Your task to perform on an android device: How much does a 2 bedroom apartment rent for in Washington DC? Image 0: 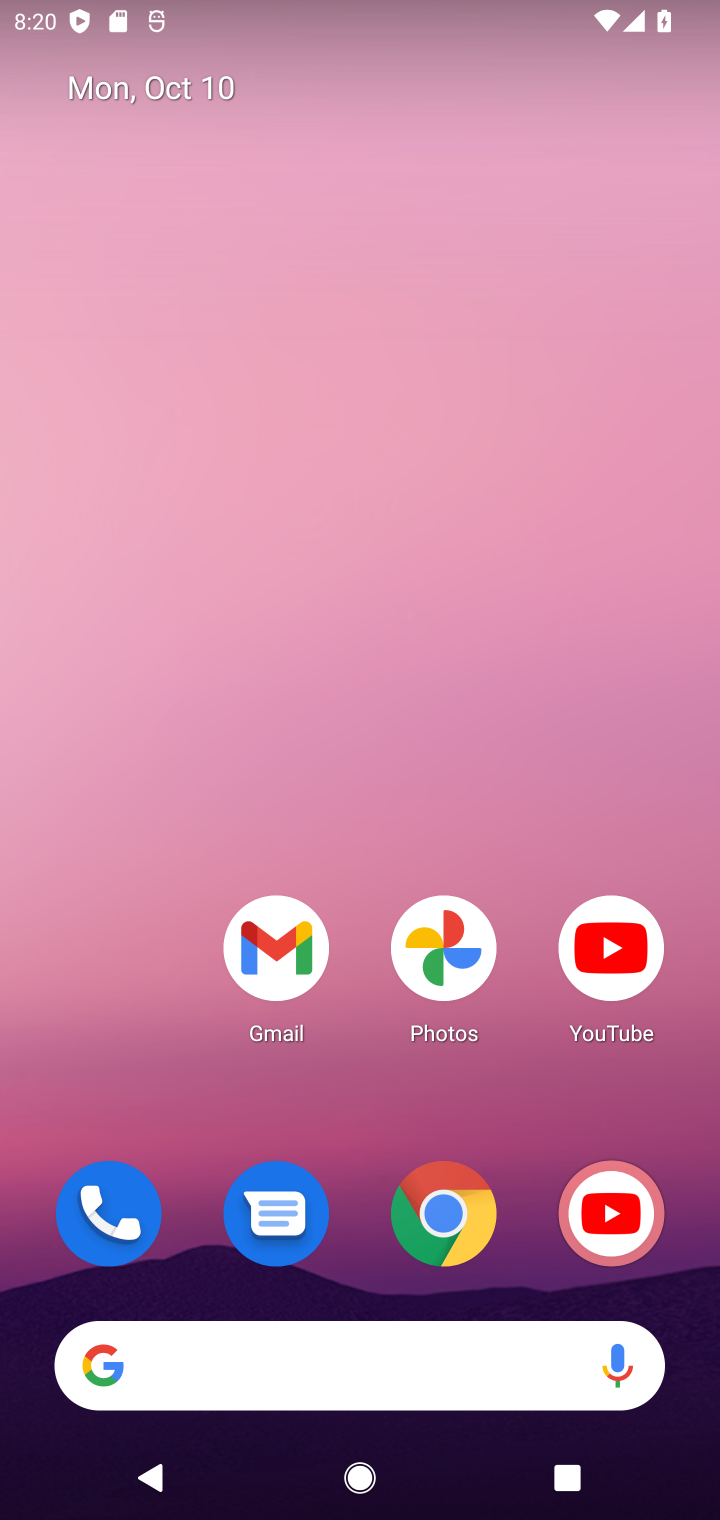
Step 0: click (341, 1407)
Your task to perform on an android device: How much does a 2 bedroom apartment rent for in Washington DC? Image 1: 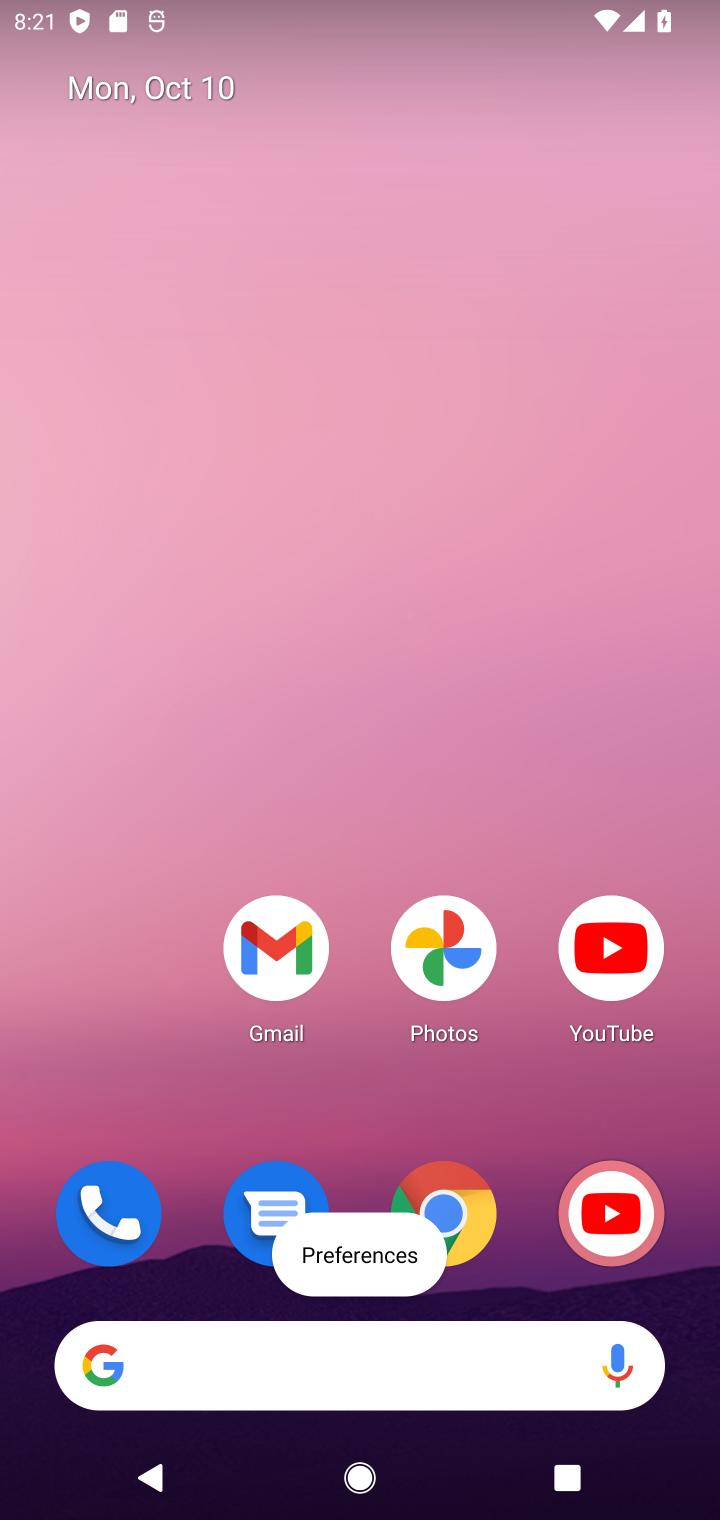
Step 1: click (320, 1351)
Your task to perform on an android device: How much does a 2 bedroom apartment rent for in Washington DC? Image 2: 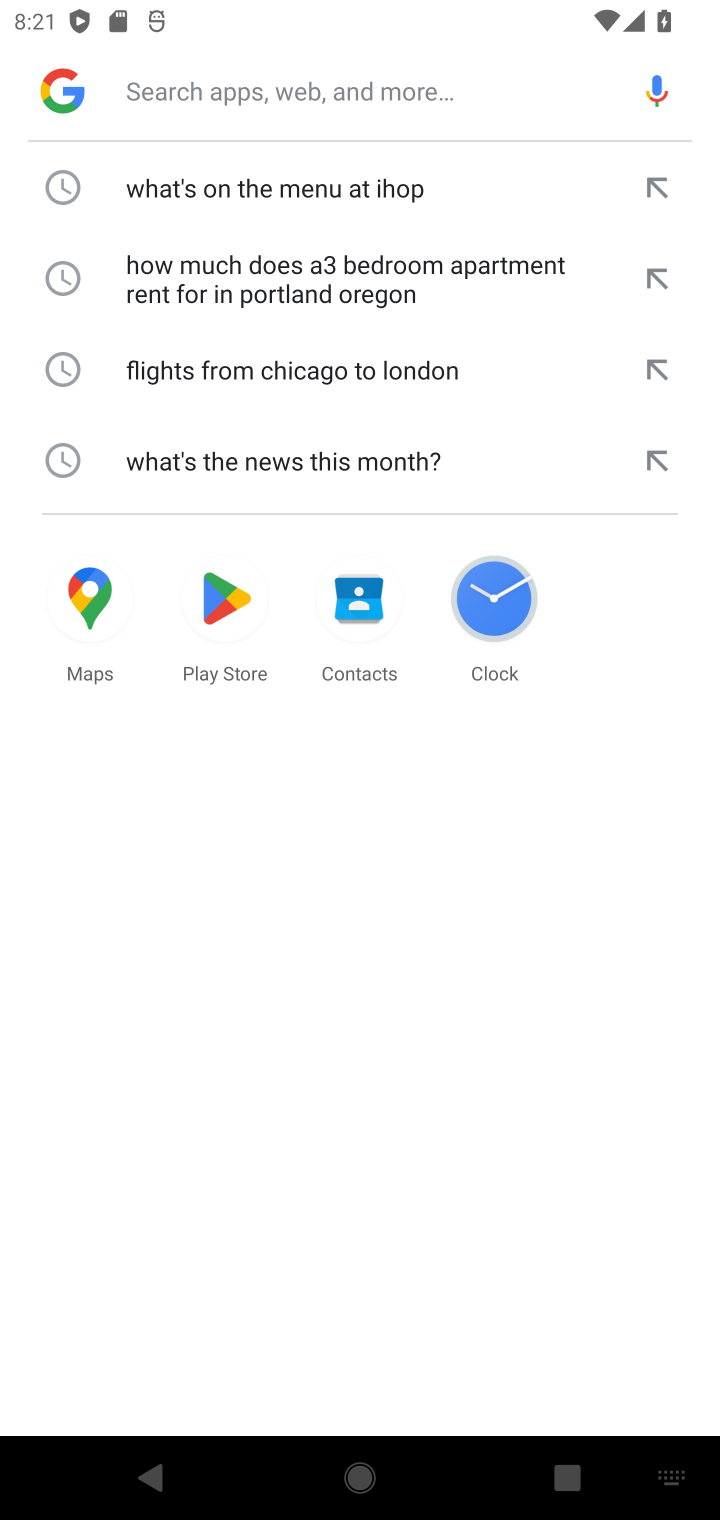
Step 2: click (246, 69)
Your task to perform on an android device: How much does a 2 bedroom apartment rent for in Washington DC? Image 3: 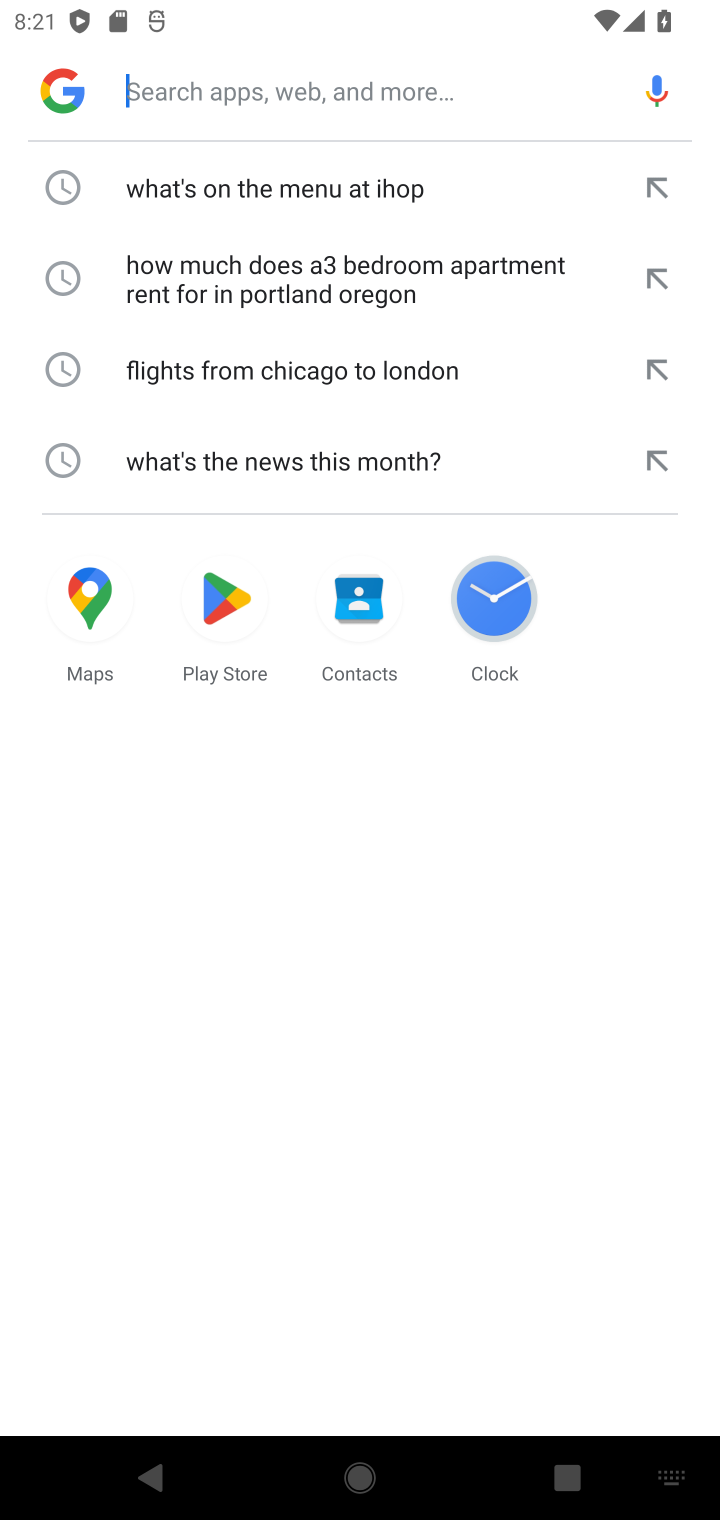
Step 3: type "How much does a 2 bedroom apartment rent for in Washington DC?"
Your task to perform on an android device: How much does a 2 bedroom apartment rent for in Washington DC? Image 4: 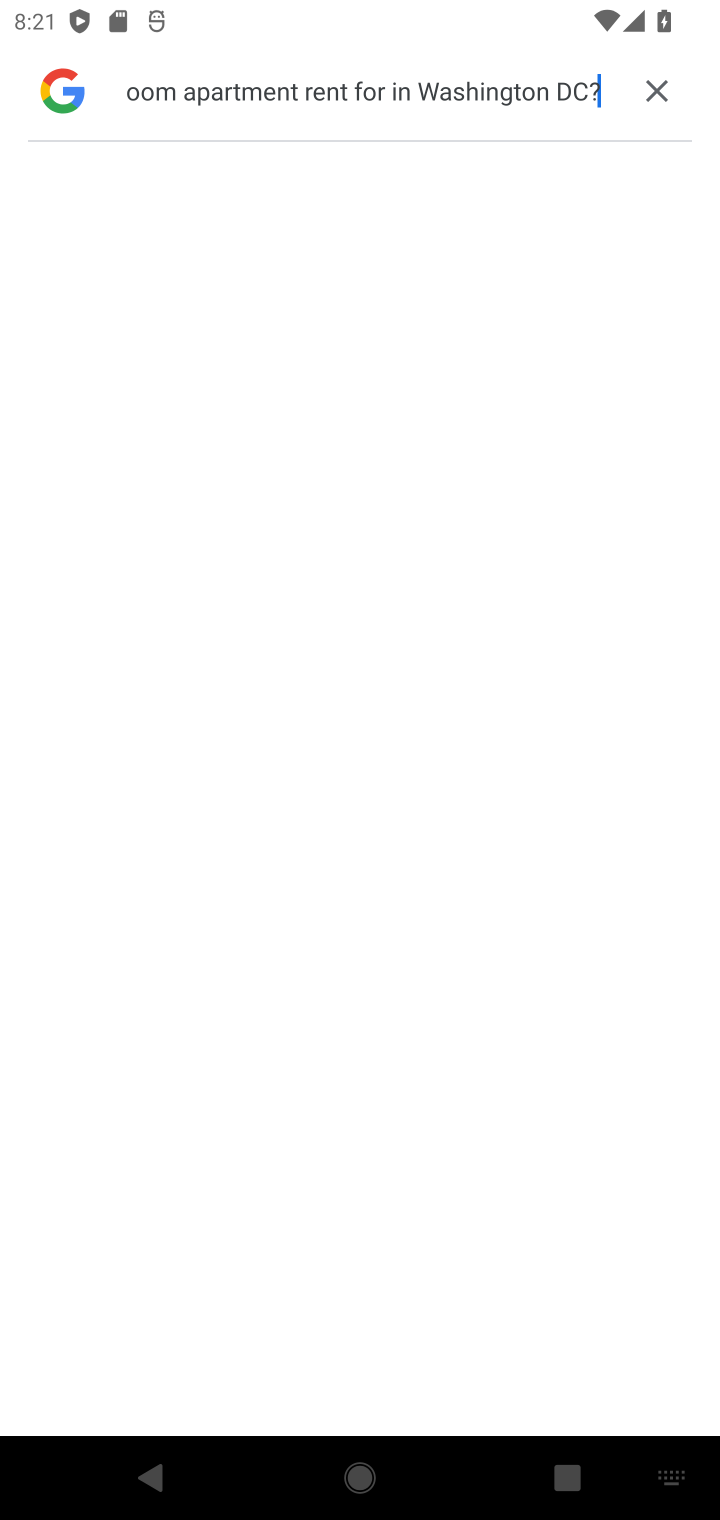
Step 4: task complete